Your task to perform on an android device: toggle notification dots Image 0: 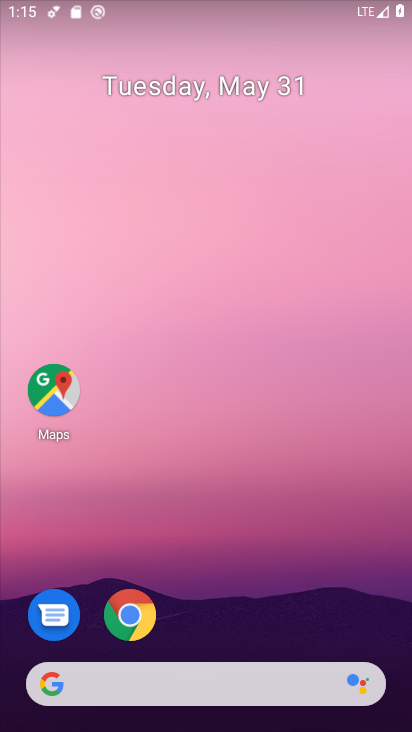
Step 0: drag from (215, 629) to (277, 0)
Your task to perform on an android device: toggle notification dots Image 1: 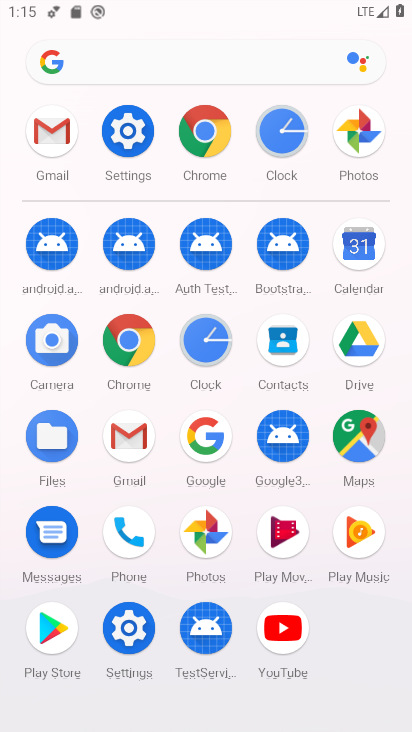
Step 1: click (139, 132)
Your task to perform on an android device: toggle notification dots Image 2: 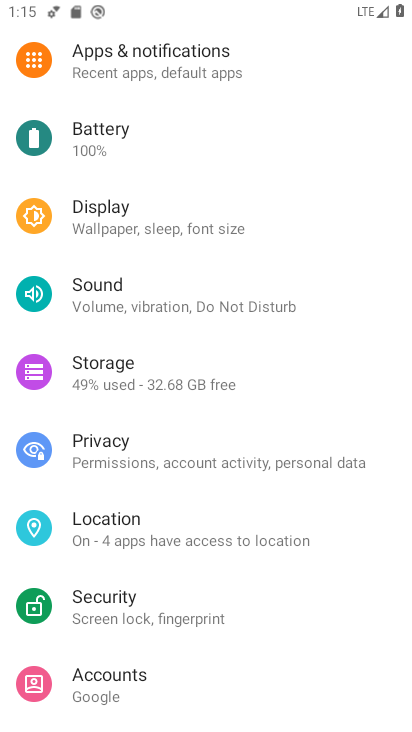
Step 2: drag from (150, 214) to (120, 637)
Your task to perform on an android device: toggle notification dots Image 3: 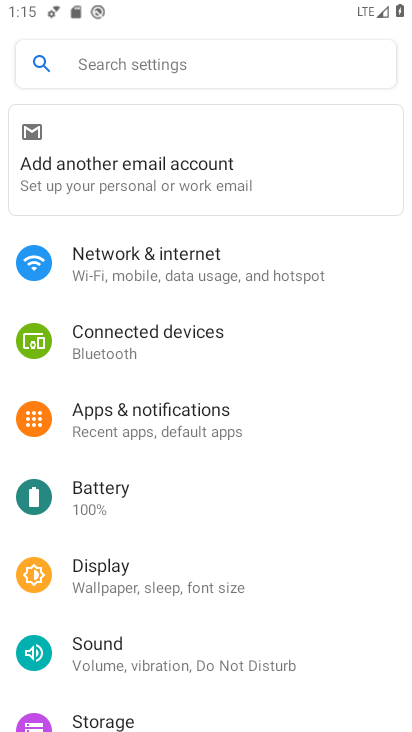
Step 3: click (186, 419)
Your task to perform on an android device: toggle notification dots Image 4: 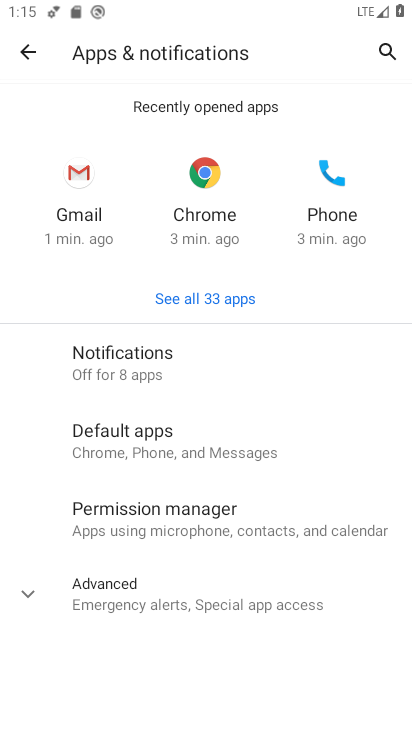
Step 4: click (153, 357)
Your task to perform on an android device: toggle notification dots Image 5: 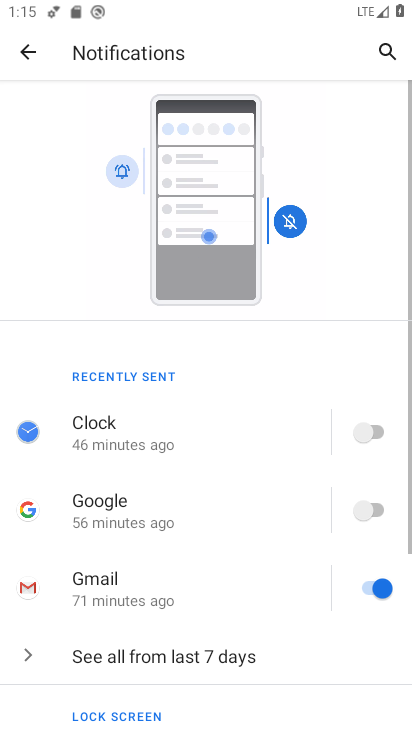
Step 5: drag from (204, 647) to (226, 233)
Your task to perform on an android device: toggle notification dots Image 6: 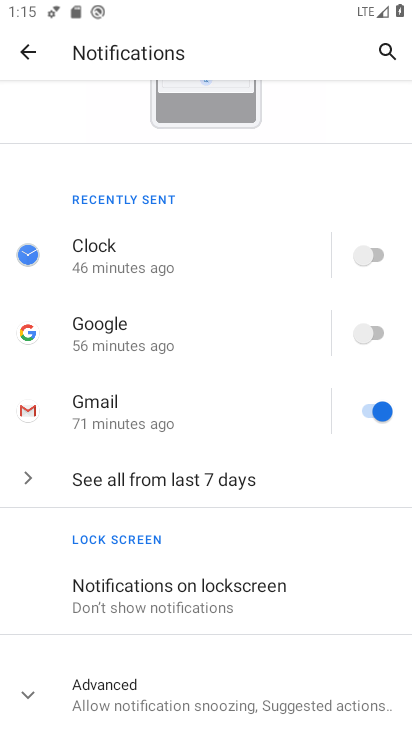
Step 6: click (153, 700)
Your task to perform on an android device: toggle notification dots Image 7: 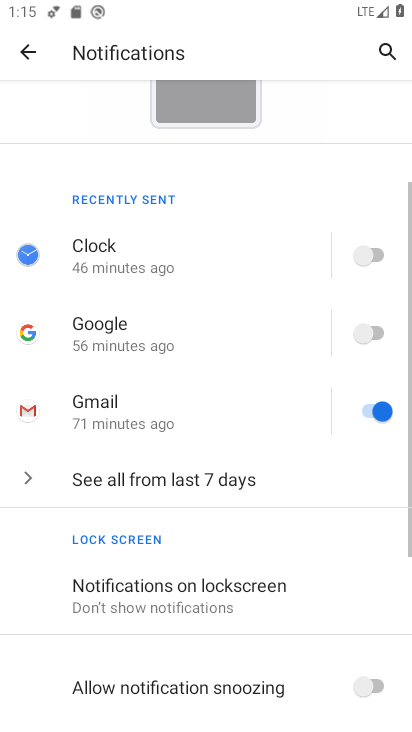
Step 7: drag from (153, 667) to (191, 211)
Your task to perform on an android device: toggle notification dots Image 8: 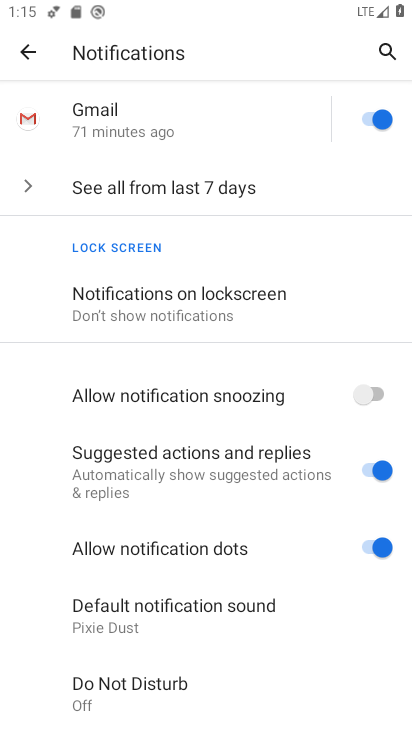
Step 8: click (353, 538)
Your task to perform on an android device: toggle notification dots Image 9: 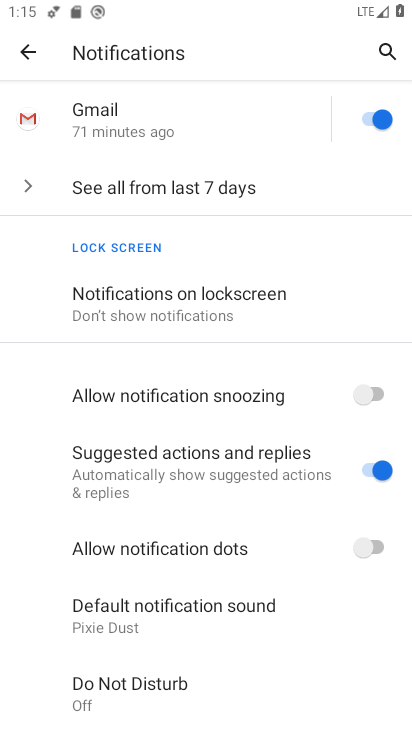
Step 9: task complete